Your task to perform on an android device: toggle data saver in the chrome app Image 0: 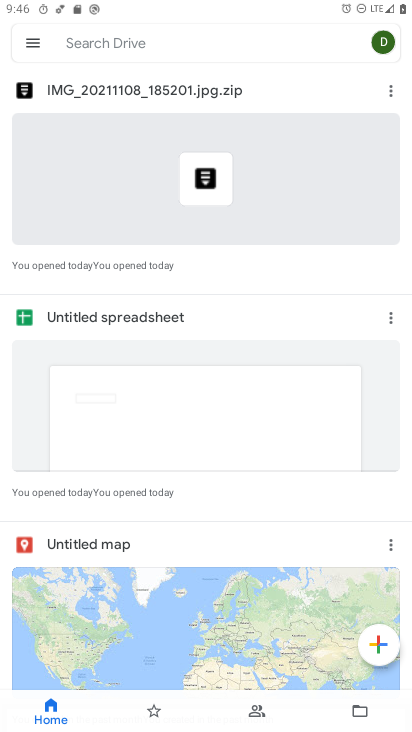
Step 0: press home button
Your task to perform on an android device: toggle data saver in the chrome app Image 1: 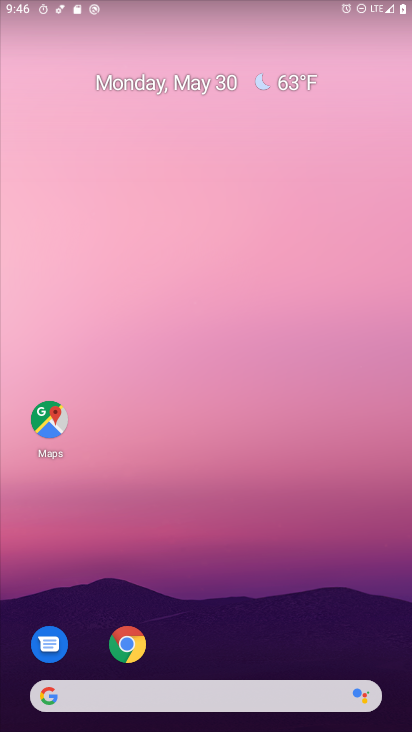
Step 1: click (132, 648)
Your task to perform on an android device: toggle data saver in the chrome app Image 2: 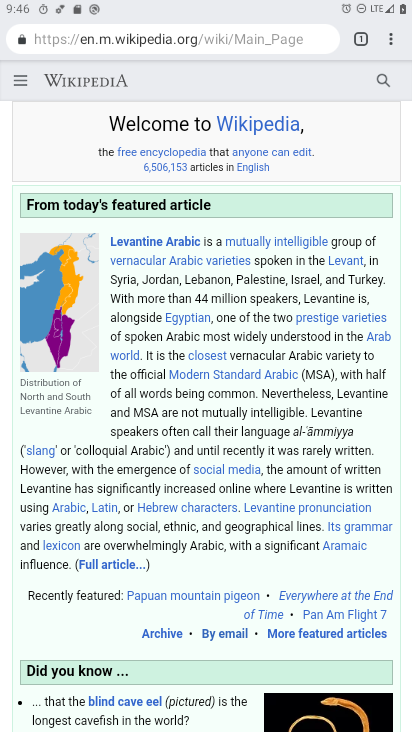
Step 2: click (384, 40)
Your task to perform on an android device: toggle data saver in the chrome app Image 3: 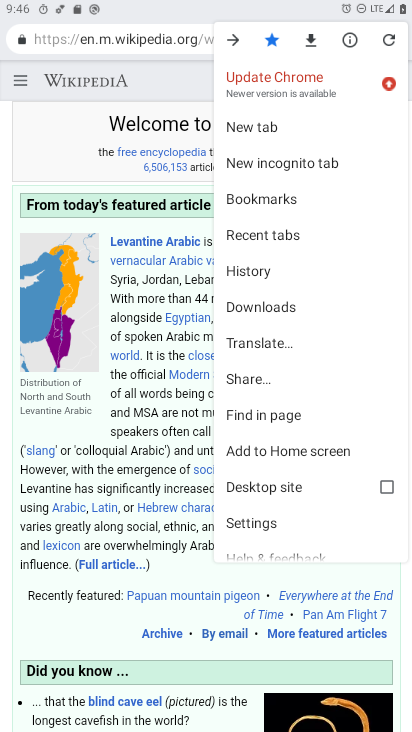
Step 3: click (258, 518)
Your task to perform on an android device: toggle data saver in the chrome app Image 4: 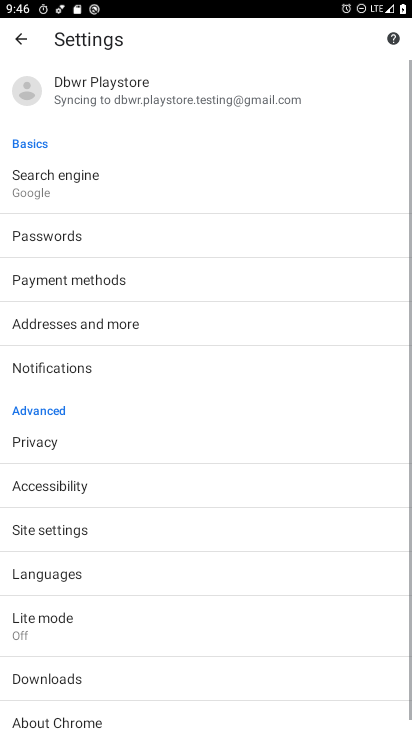
Step 4: drag from (117, 642) to (132, 437)
Your task to perform on an android device: toggle data saver in the chrome app Image 5: 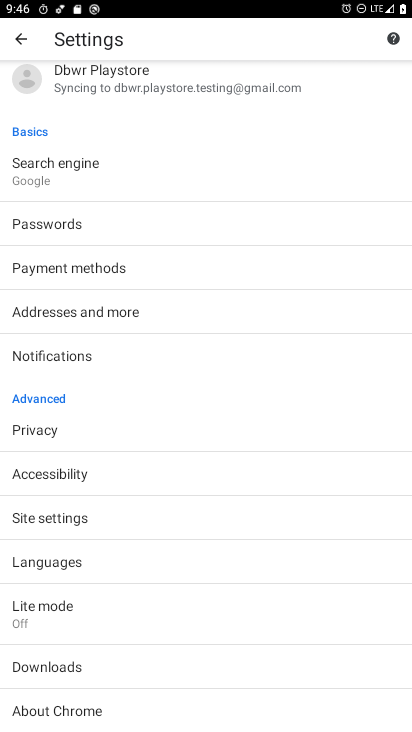
Step 5: click (43, 624)
Your task to perform on an android device: toggle data saver in the chrome app Image 6: 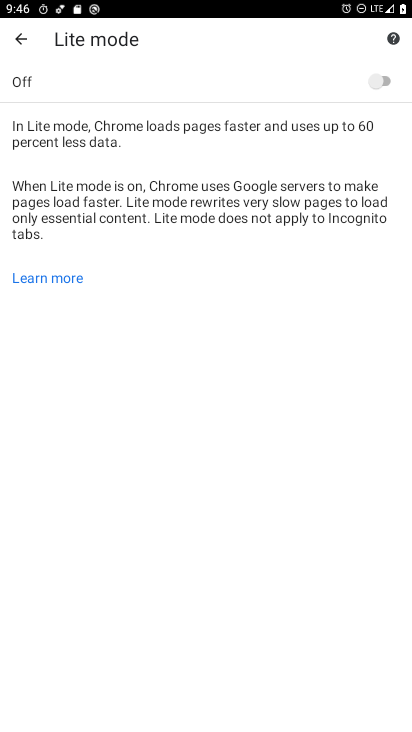
Step 6: click (382, 86)
Your task to perform on an android device: toggle data saver in the chrome app Image 7: 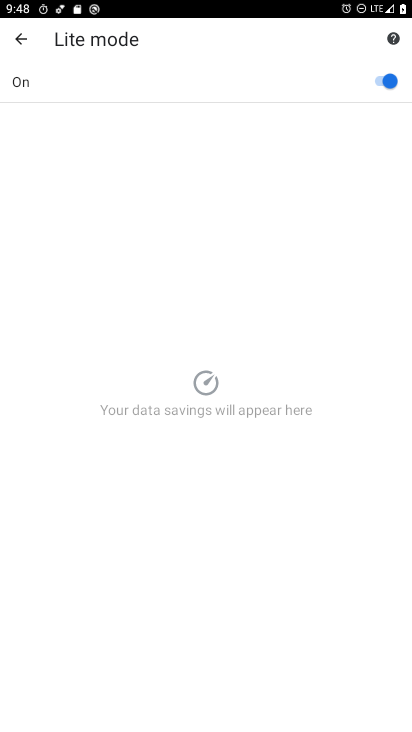
Step 7: task complete